Your task to perform on an android device: toggle translation in the chrome app Image 0: 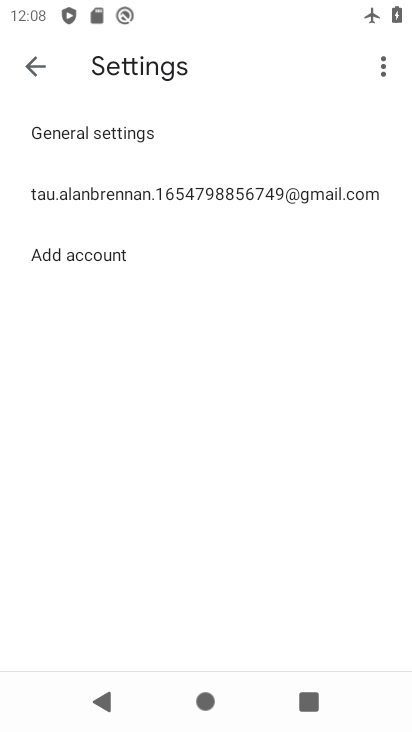
Step 0: press home button
Your task to perform on an android device: toggle translation in the chrome app Image 1: 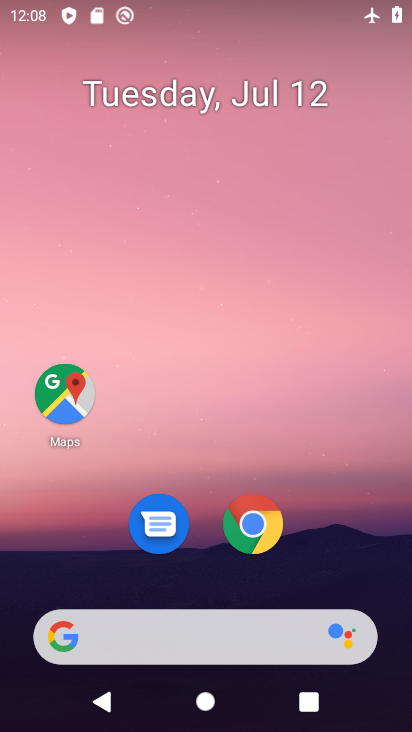
Step 1: click (249, 531)
Your task to perform on an android device: toggle translation in the chrome app Image 2: 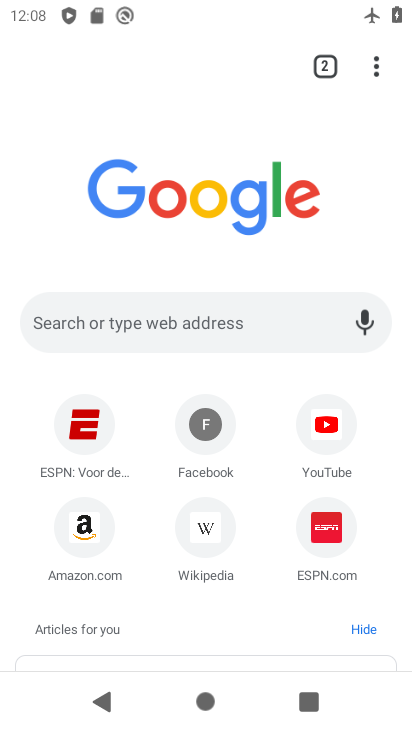
Step 2: click (374, 68)
Your task to perform on an android device: toggle translation in the chrome app Image 3: 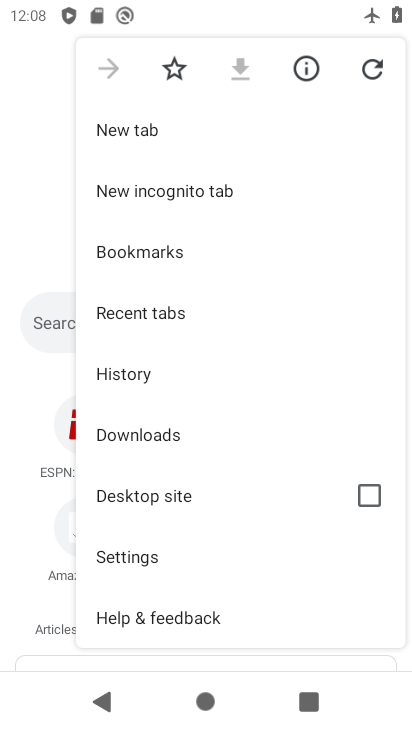
Step 3: click (166, 550)
Your task to perform on an android device: toggle translation in the chrome app Image 4: 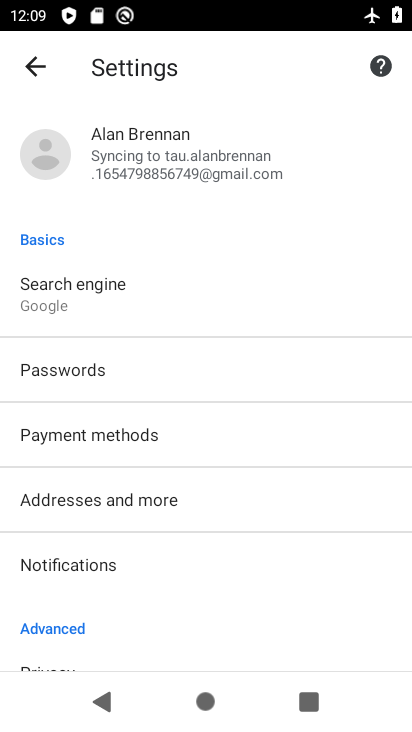
Step 4: drag from (237, 557) to (287, 162)
Your task to perform on an android device: toggle translation in the chrome app Image 5: 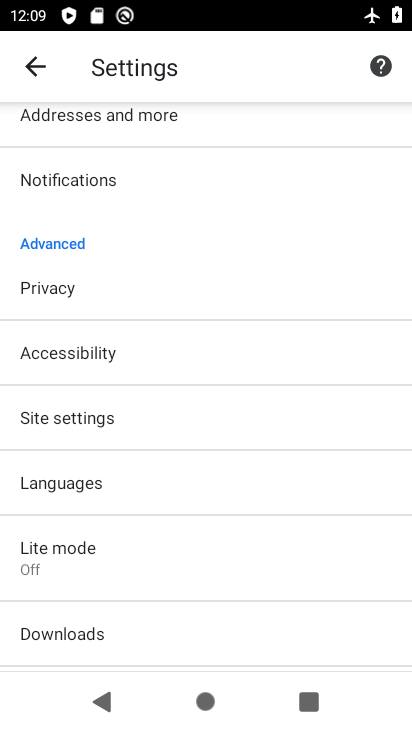
Step 5: click (113, 473)
Your task to perform on an android device: toggle translation in the chrome app Image 6: 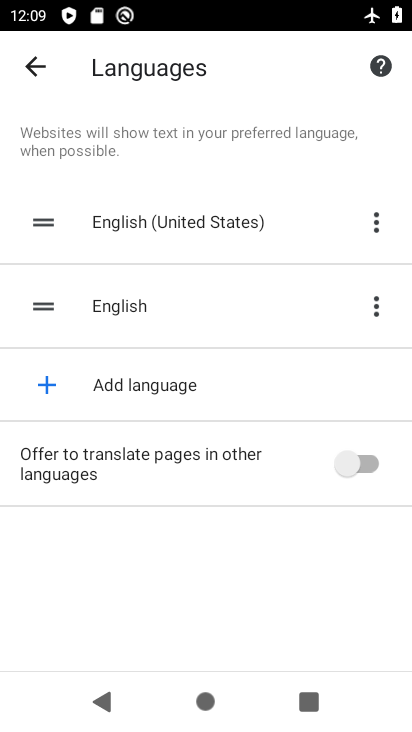
Step 6: click (361, 463)
Your task to perform on an android device: toggle translation in the chrome app Image 7: 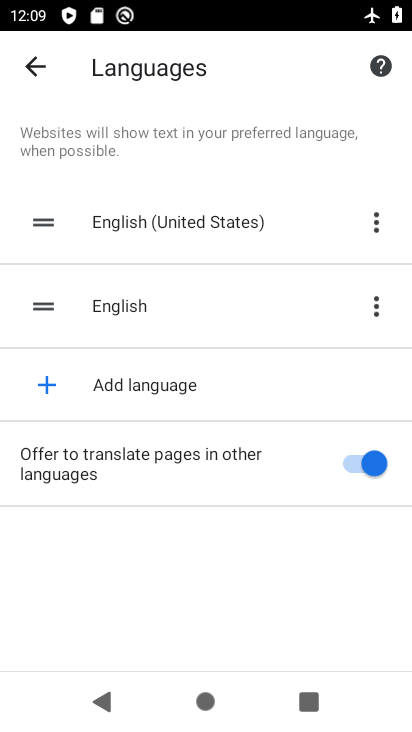
Step 7: task complete